Your task to perform on an android device: Show me recent news Image 0: 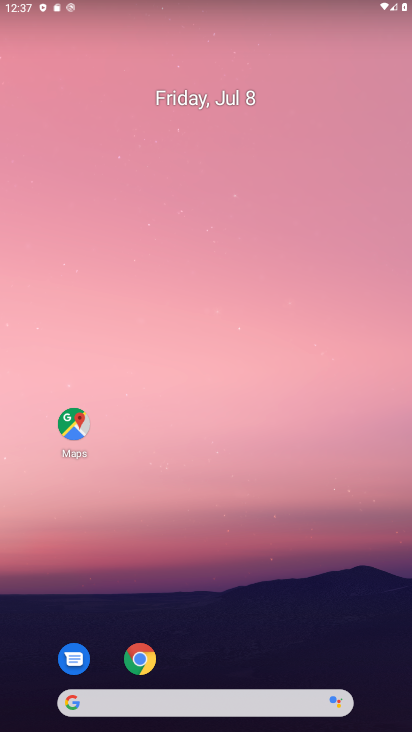
Step 0: drag from (279, 272) to (243, 241)
Your task to perform on an android device: Show me recent news Image 1: 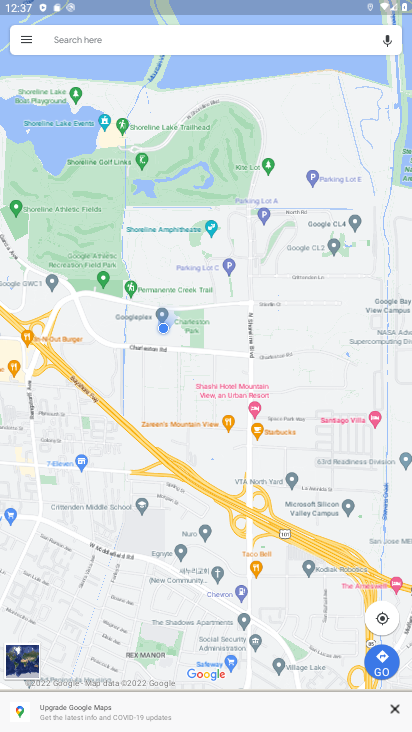
Step 1: press home button
Your task to perform on an android device: Show me recent news Image 2: 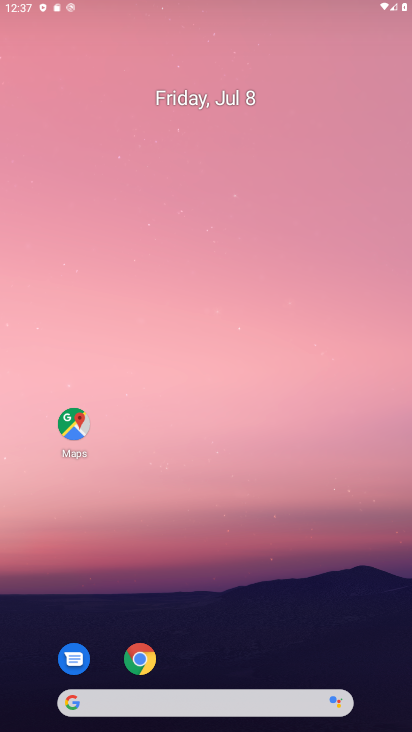
Step 2: drag from (241, 544) to (315, 206)
Your task to perform on an android device: Show me recent news Image 3: 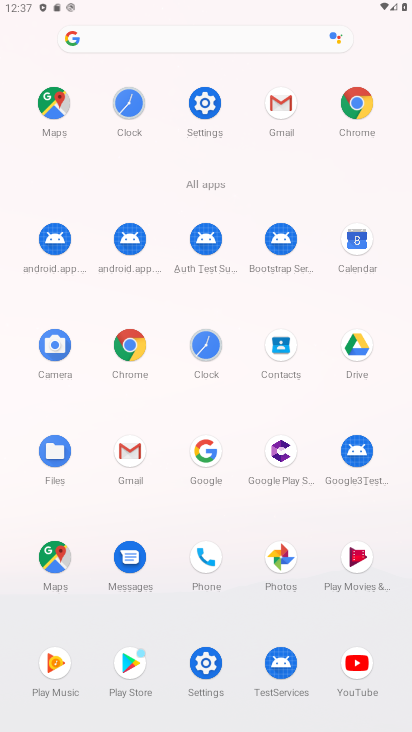
Step 3: click (207, 450)
Your task to perform on an android device: Show me recent news Image 4: 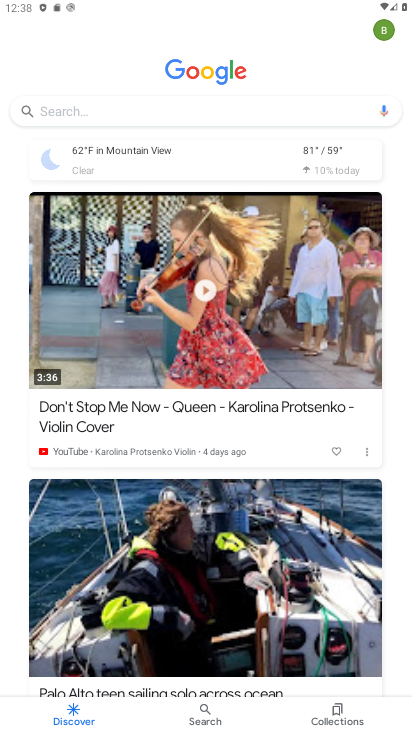
Step 4: task complete